Your task to perform on an android device: change the clock display to digital Image 0: 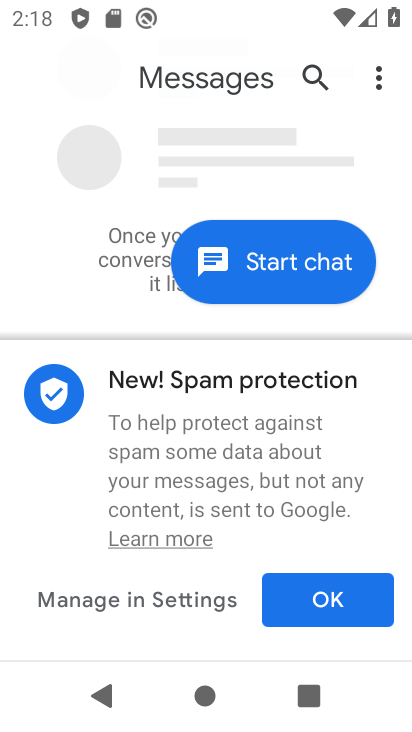
Step 0: press home button
Your task to perform on an android device: change the clock display to digital Image 1: 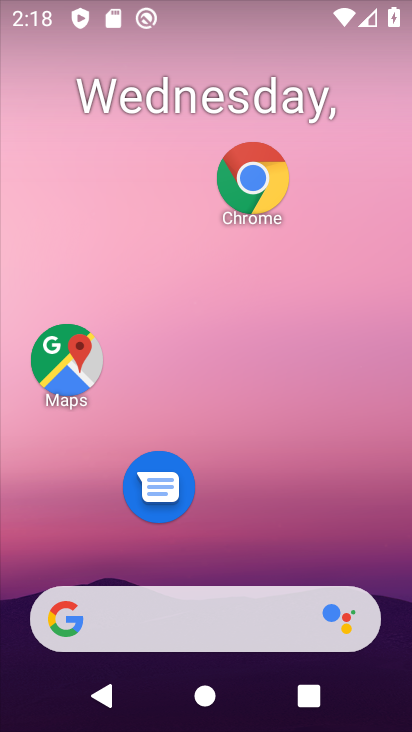
Step 1: drag from (270, 535) to (227, 109)
Your task to perform on an android device: change the clock display to digital Image 2: 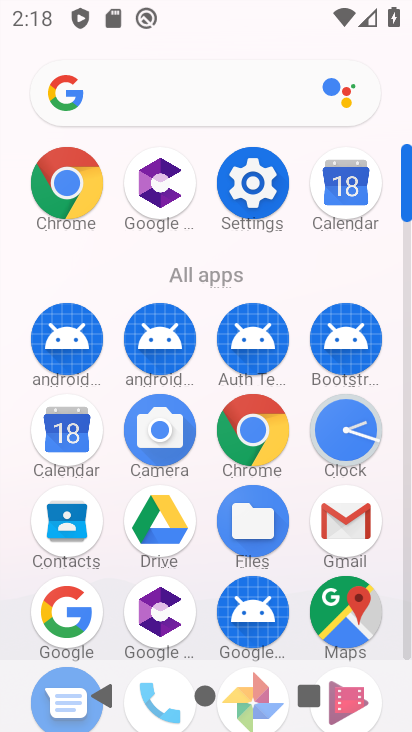
Step 2: click (331, 434)
Your task to perform on an android device: change the clock display to digital Image 3: 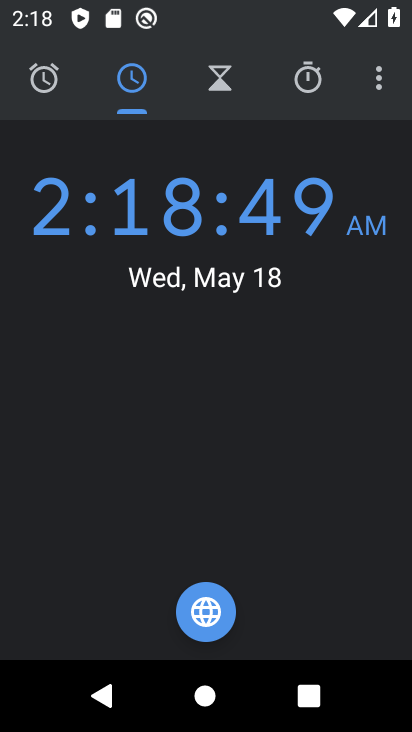
Step 3: click (380, 81)
Your task to perform on an android device: change the clock display to digital Image 4: 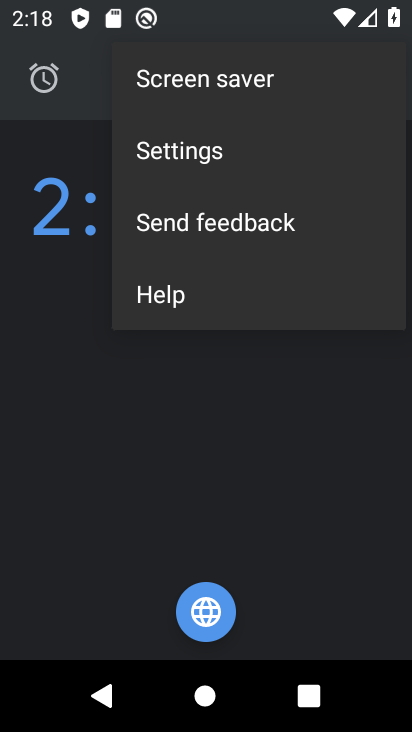
Step 4: click (231, 148)
Your task to perform on an android device: change the clock display to digital Image 5: 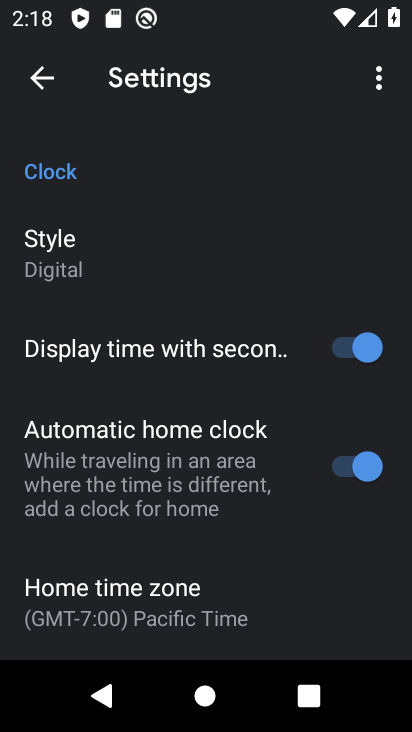
Step 5: click (124, 253)
Your task to perform on an android device: change the clock display to digital Image 6: 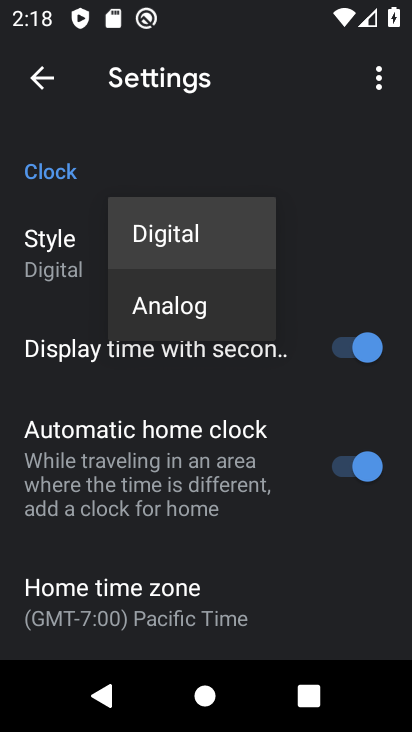
Step 6: click (170, 240)
Your task to perform on an android device: change the clock display to digital Image 7: 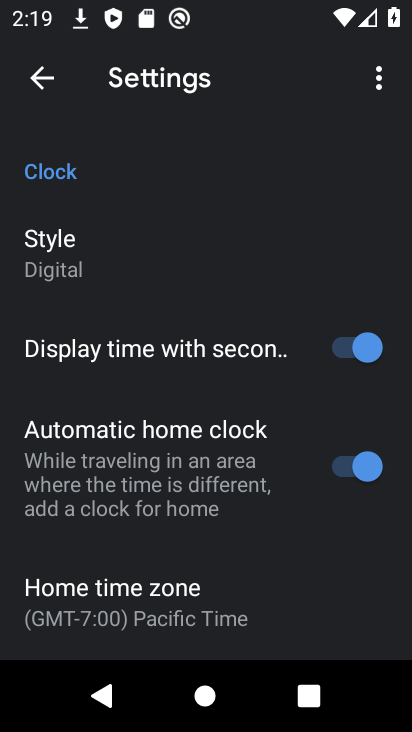
Step 7: task complete